Your task to perform on an android device: Toggle the flashlight Image 0: 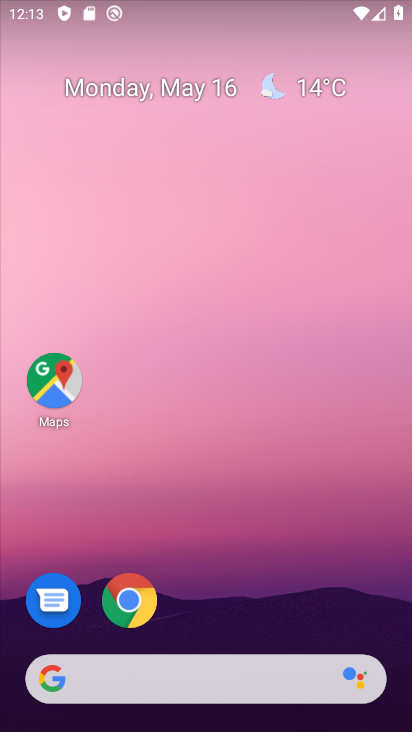
Step 0: drag from (265, 17) to (244, 529)
Your task to perform on an android device: Toggle the flashlight Image 1: 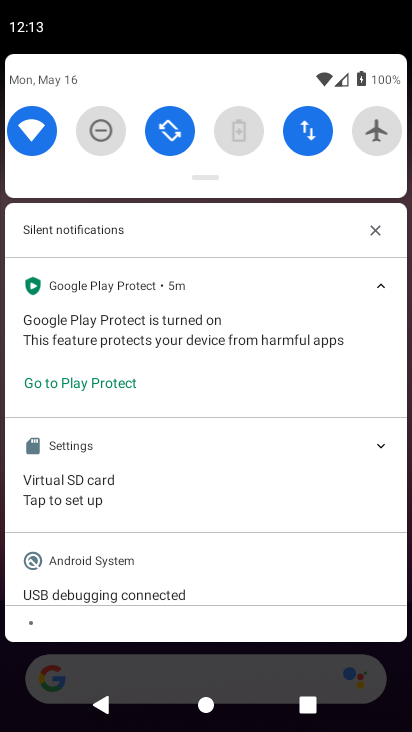
Step 1: task complete